Your task to perform on an android device: allow cookies in the chrome app Image 0: 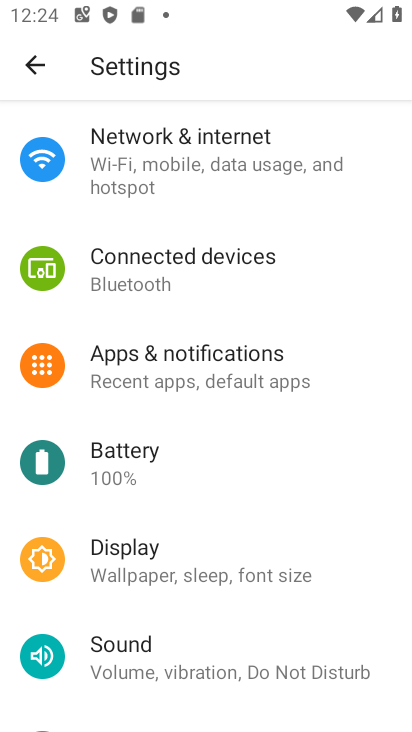
Step 0: press home button
Your task to perform on an android device: allow cookies in the chrome app Image 1: 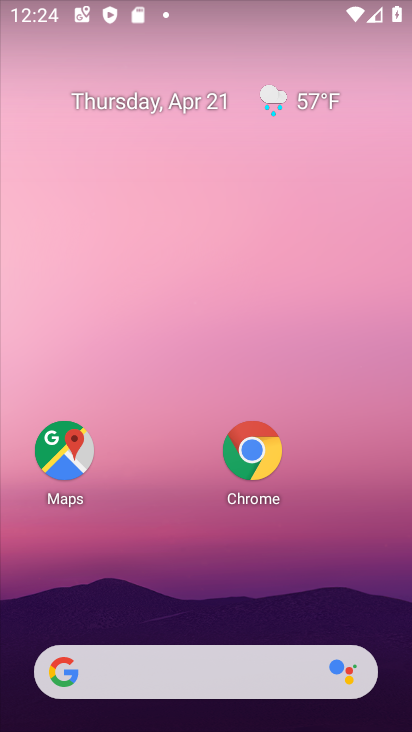
Step 1: click (257, 466)
Your task to perform on an android device: allow cookies in the chrome app Image 2: 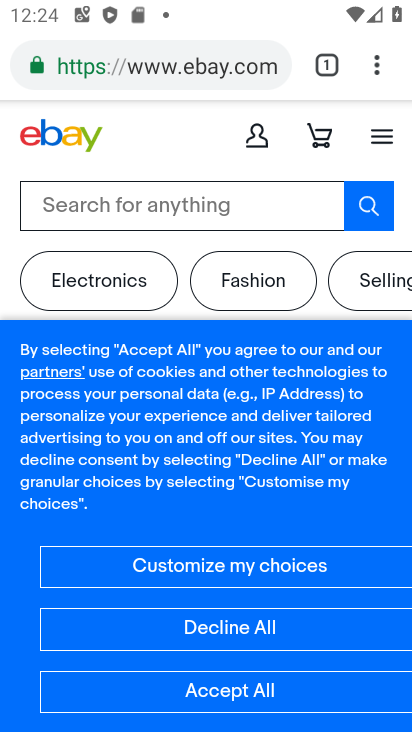
Step 2: click (391, 67)
Your task to perform on an android device: allow cookies in the chrome app Image 3: 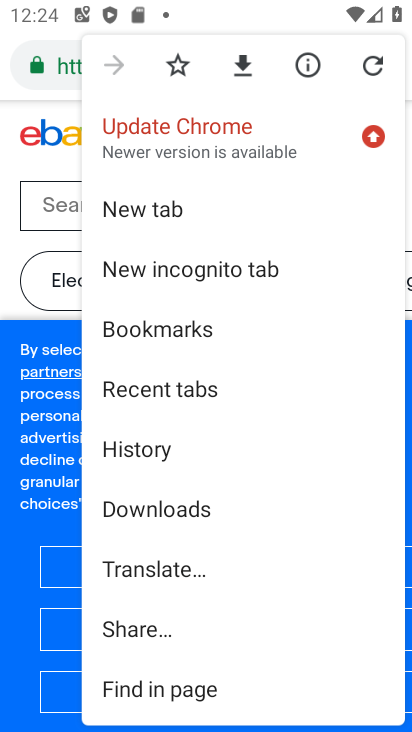
Step 3: drag from (174, 634) to (222, 221)
Your task to perform on an android device: allow cookies in the chrome app Image 4: 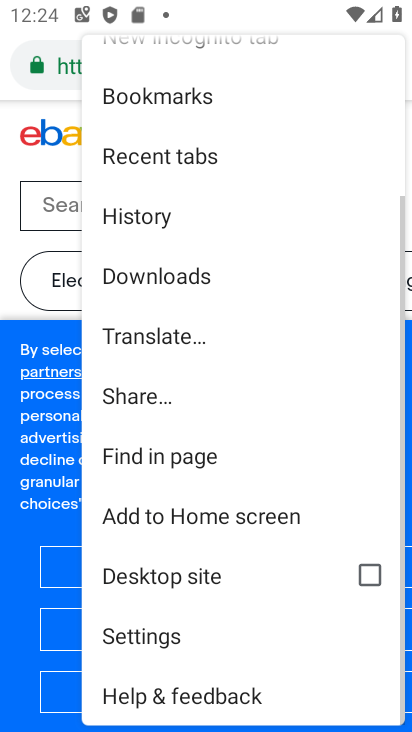
Step 4: click (134, 641)
Your task to perform on an android device: allow cookies in the chrome app Image 5: 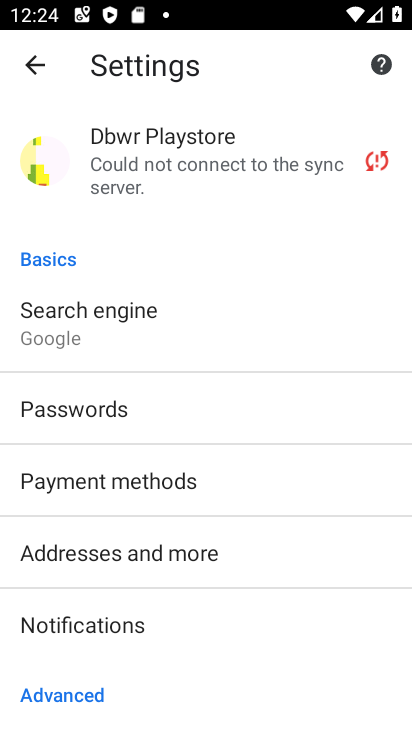
Step 5: drag from (134, 641) to (177, 229)
Your task to perform on an android device: allow cookies in the chrome app Image 6: 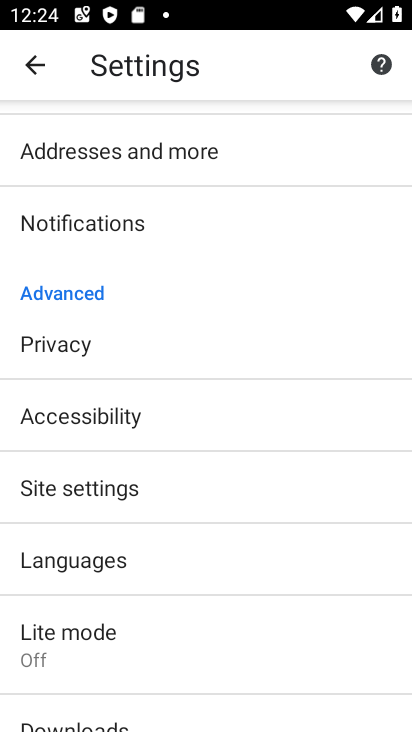
Step 6: click (134, 476)
Your task to perform on an android device: allow cookies in the chrome app Image 7: 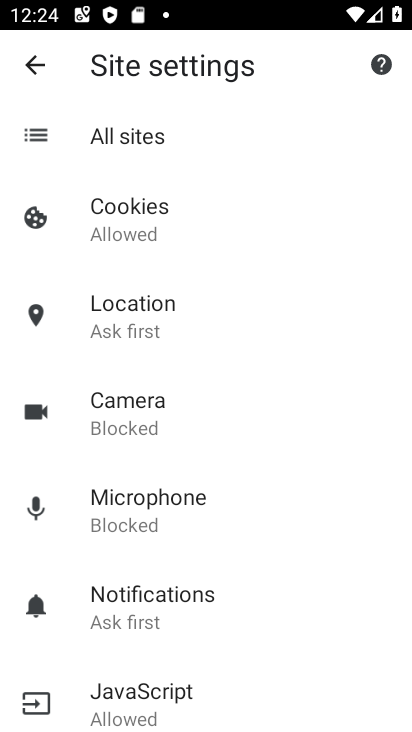
Step 7: click (96, 222)
Your task to perform on an android device: allow cookies in the chrome app Image 8: 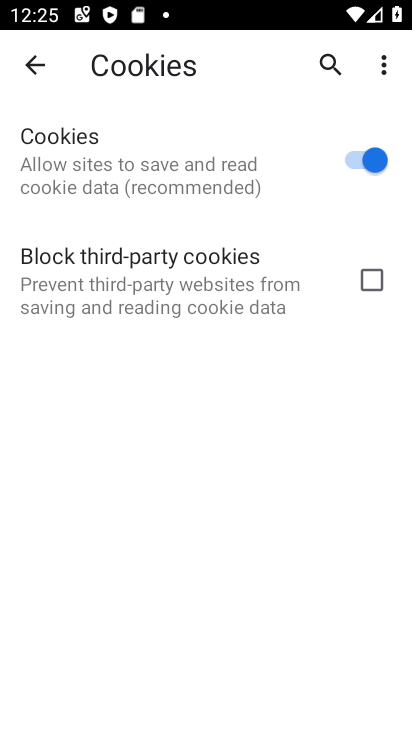
Step 8: task complete